Your task to perform on an android device: Show me productivity apps on the Play Store Image 0: 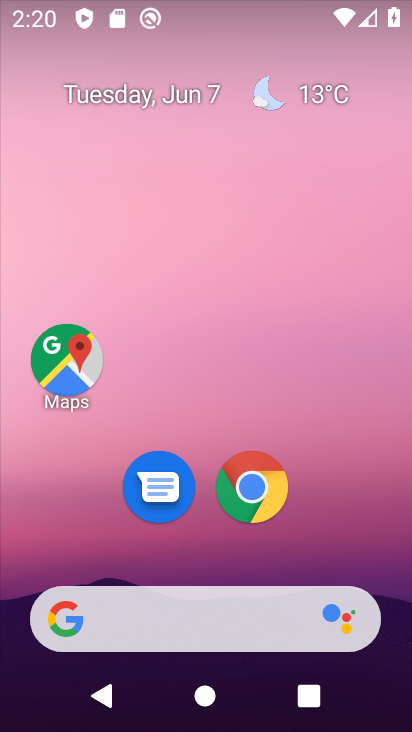
Step 0: press home button
Your task to perform on an android device: Show me productivity apps on the Play Store Image 1: 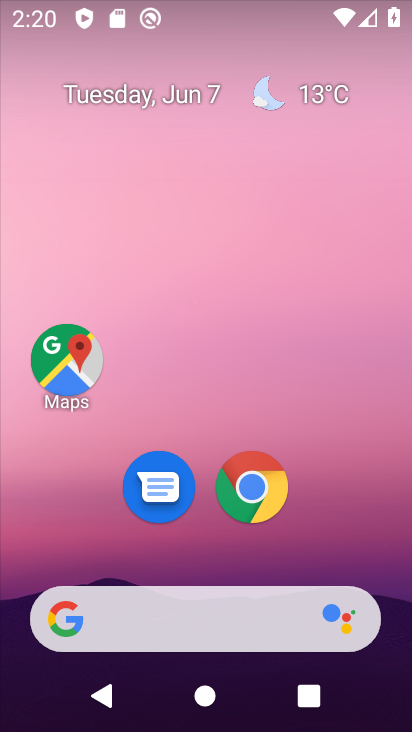
Step 1: drag from (342, 544) to (346, 194)
Your task to perform on an android device: Show me productivity apps on the Play Store Image 2: 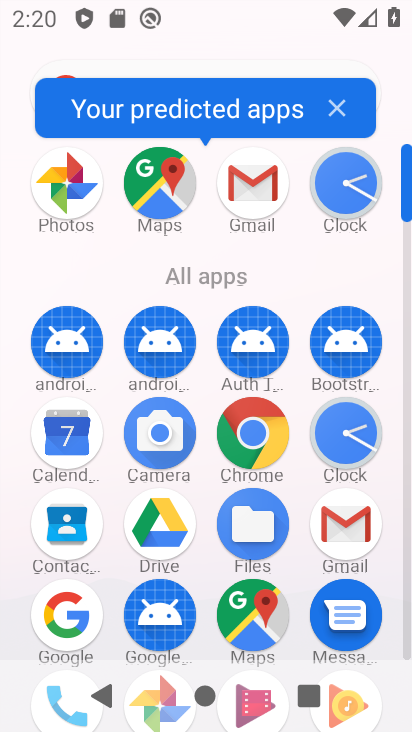
Step 2: drag from (110, 578) to (119, 265)
Your task to perform on an android device: Show me productivity apps on the Play Store Image 3: 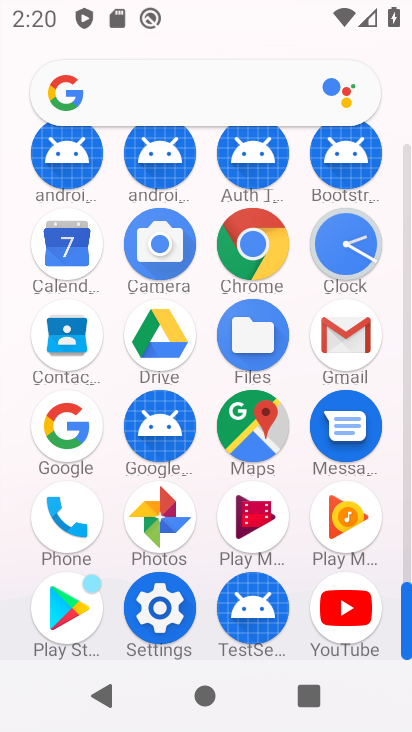
Step 3: click (74, 609)
Your task to perform on an android device: Show me productivity apps on the Play Store Image 4: 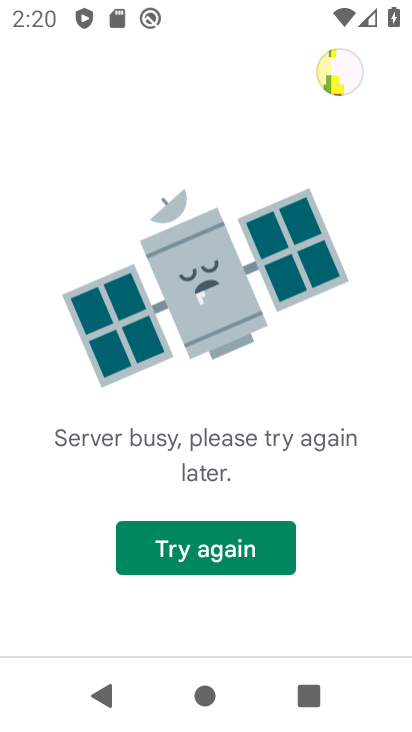
Step 4: click (216, 551)
Your task to perform on an android device: Show me productivity apps on the Play Store Image 5: 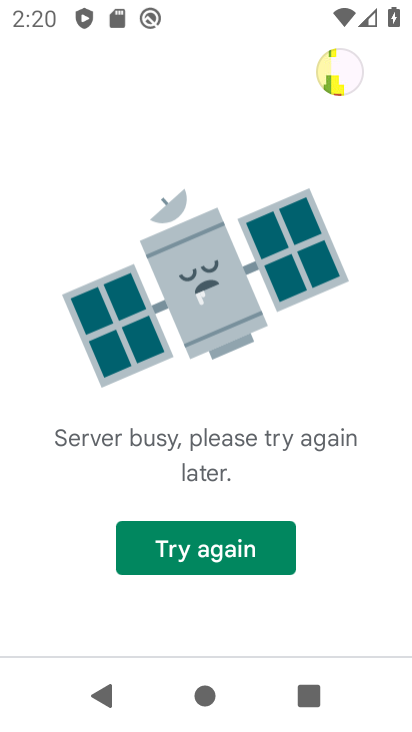
Step 5: click (207, 543)
Your task to perform on an android device: Show me productivity apps on the Play Store Image 6: 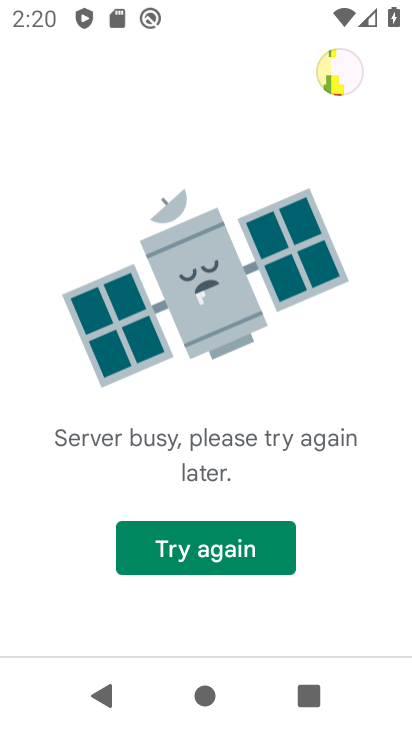
Step 6: click (329, 79)
Your task to perform on an android device: Show me productivity apps on the Play Store Image 7: 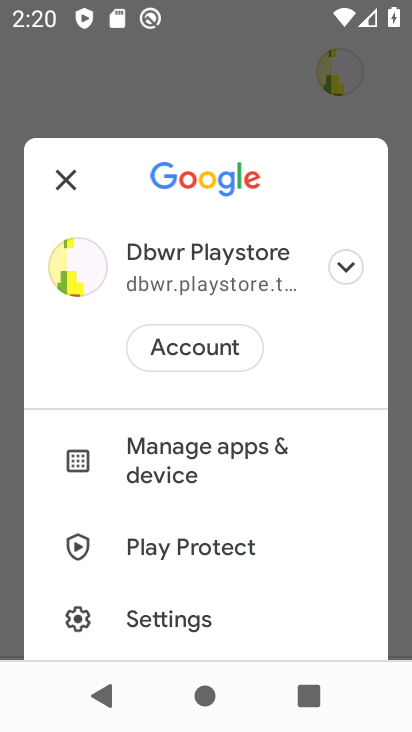
Step 7: drag from (311, 599) to (308, 246)
Your task to perform on an android device: Show me productivity apps on the Play Store Image 8: 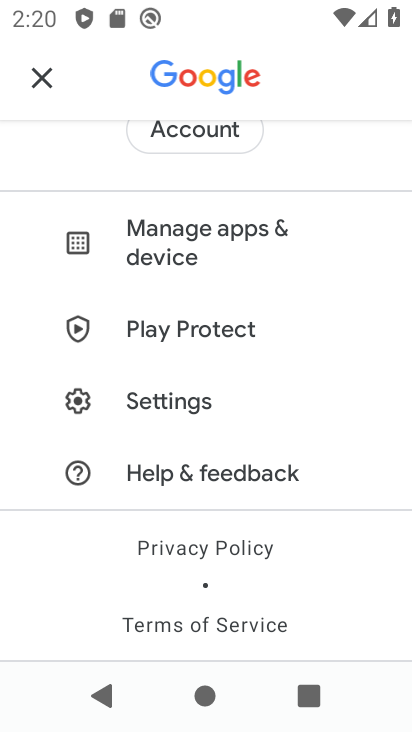
Step 8: click (176, 408)
Your task to perform on an android device: Show me productivity apps on the Play Store Image 9: 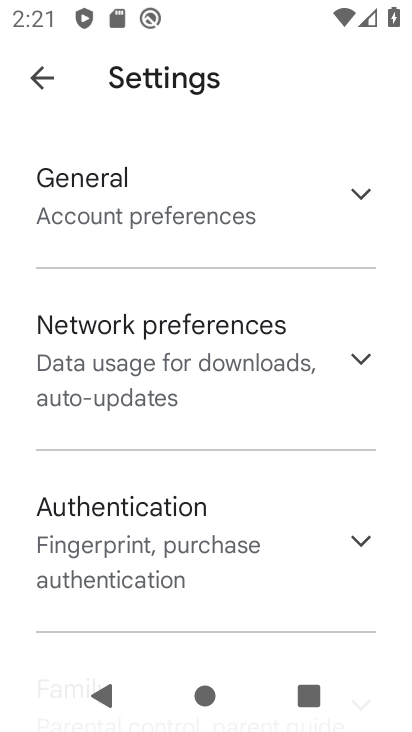
Step 9: press home button
Your task to perform on an android device: Show me productivity apps on the Play Store Image 10: 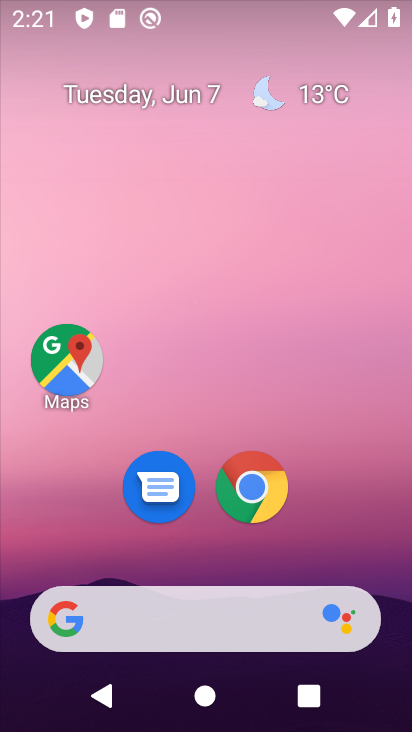
Step 10: drag from (344, 547) to (367, 204)
Your task to perform on an android device: Show me productivity apps on the Play Store Image 11: 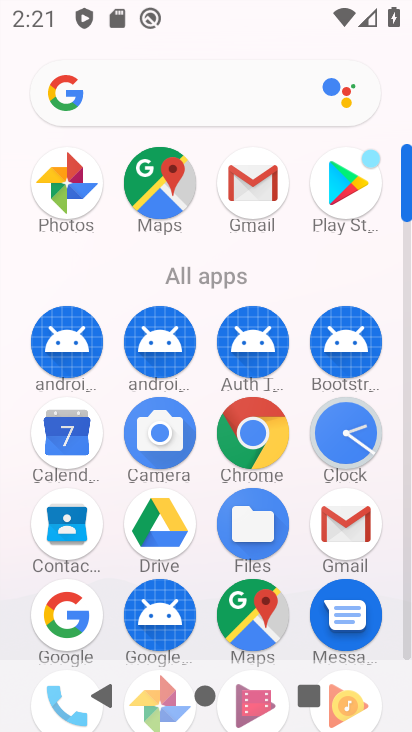
Step 11: drag from (201, 651) to (211, 257)
Your task to perform on an android device: Show me productivity apps on the Play Store Image 12: 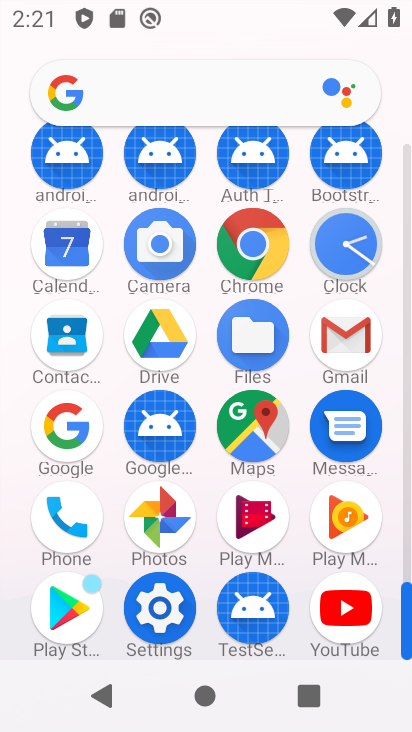
Step 12: click (62, 610)
Your task to perform on an android device: Show me productivity apps on the Play Store Image 13: 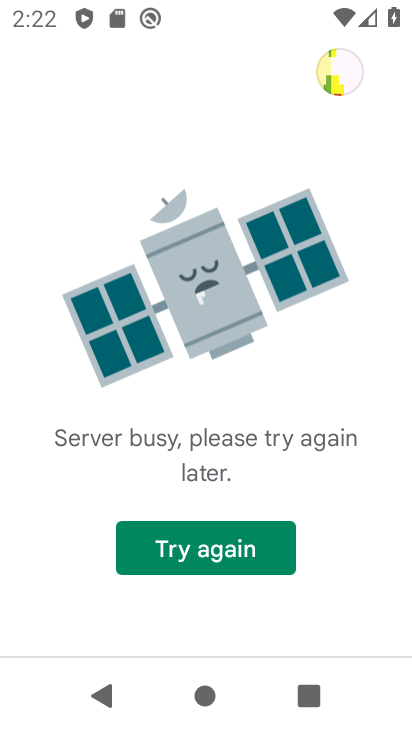
Step 13: click (208, 526)
Your task to perform on an android device: Show me productivity apps on the Play Store Image 14: 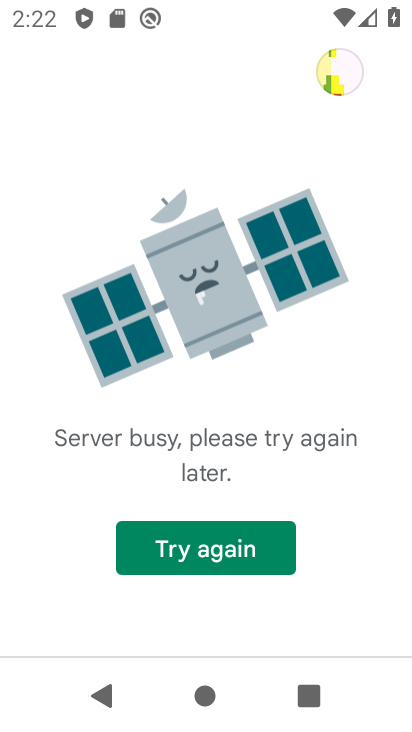
Step 14: task complete